Your task to perform on an android device: change notifications settings Image 0: 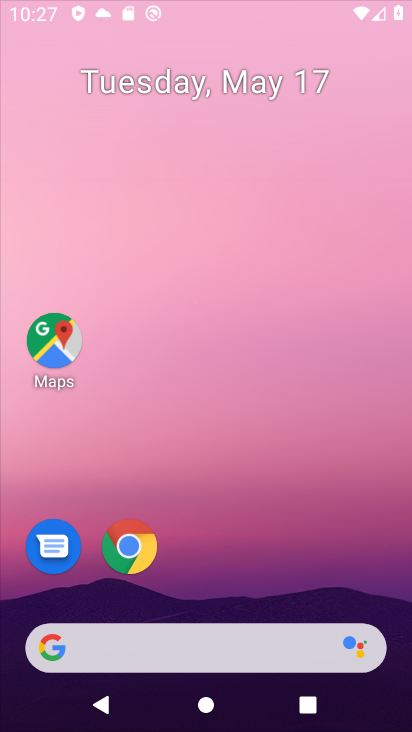
Step 0: drag from (282, 449) to (320, 163)
Your task to perform on an android device: change notifications settings Image 1: 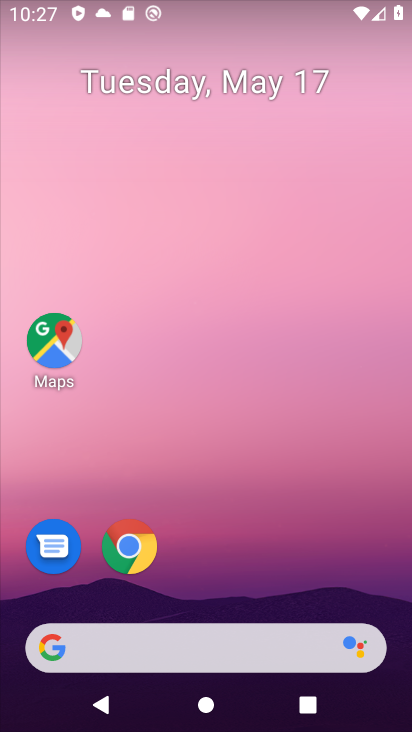
Step 1: drag from (257, 596) to (275, 246)
Your task to perform on an android device: change notifications settings Image 2: 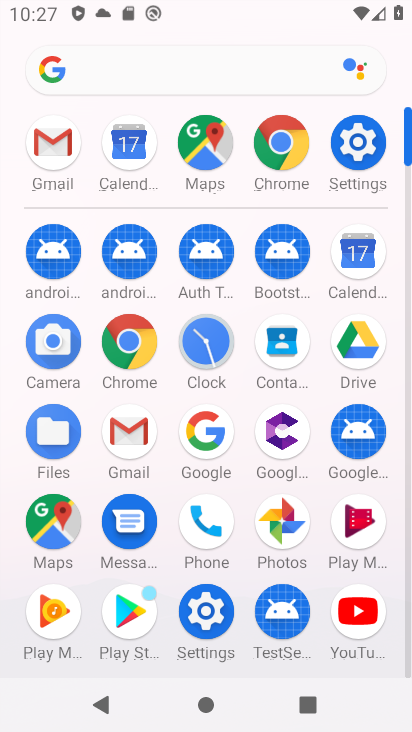
Step 2: click (344, 134)
Your task to perform on an android device: change notifications settings Image 3: 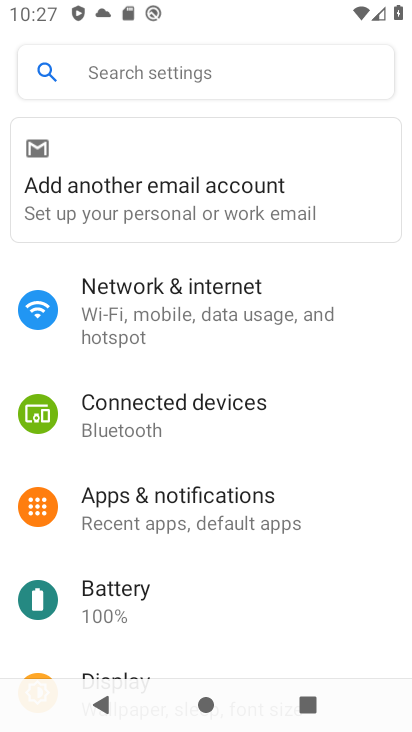
Step 3: click (171, 511)
Your task to perform on an android device: change notifications settings Image 4: 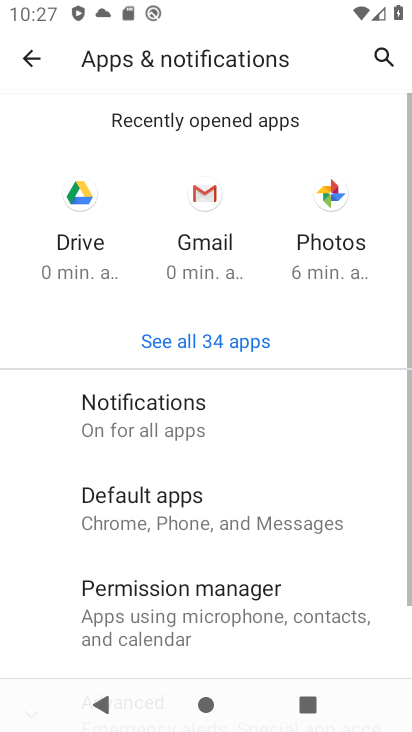
Step 4: click (171, 419)
Your task to perform on an android device: change notifications settings Image 5: 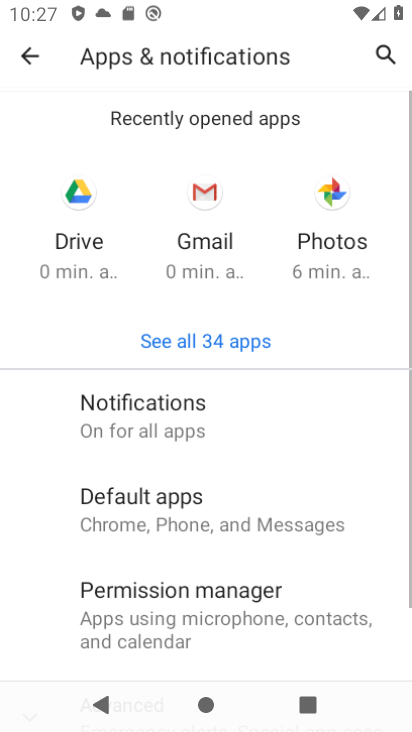
Step 5: drag from (256, 589) to (311, 246)
Your task to perform on an android device: change notifications settings Image 6: 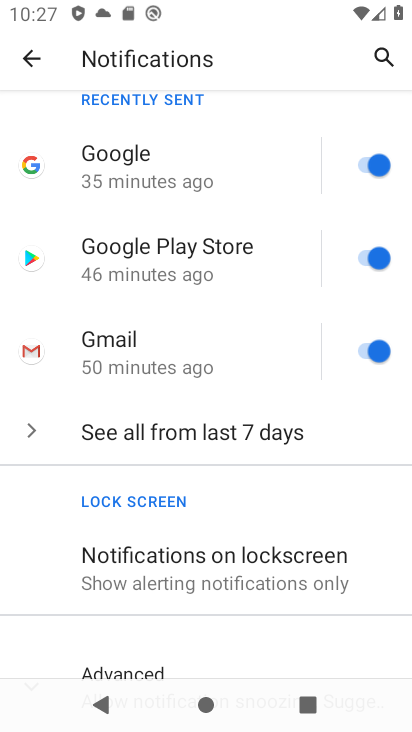
Step 6: click (253, 430)
Your task to perform on an android device: change notifications settings Image 7: 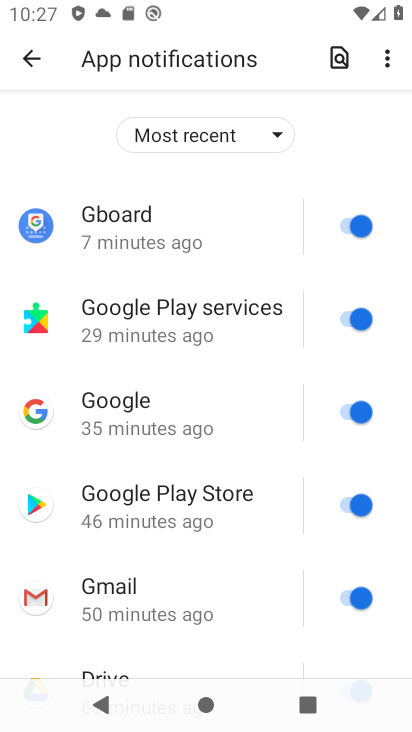
Step 7: click (332, 230)
Your task to perform on an android device: change notifications settings Image 8: 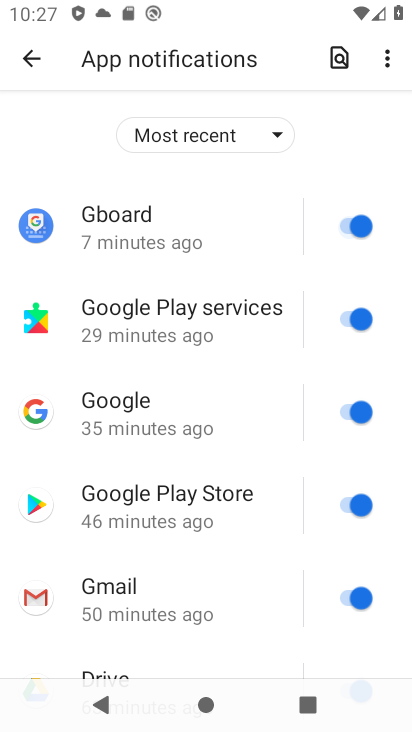
Step 8: click (347, 316)
Your task to perform on an android device: change notifications settings Image 9: 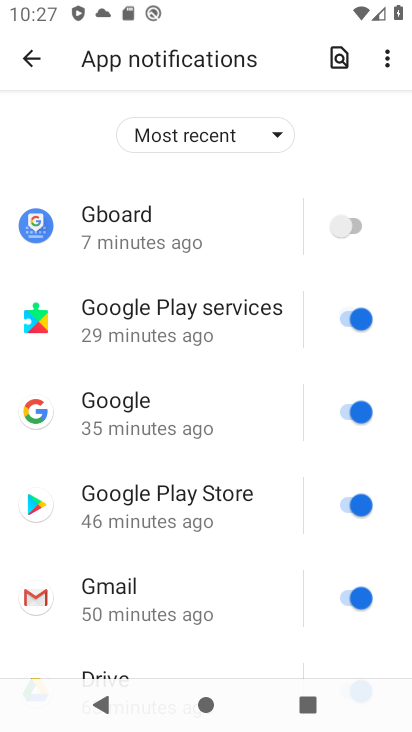
Step 9: click (348, 439)
Your task to perform on an android device: change notifications settings Image 10: 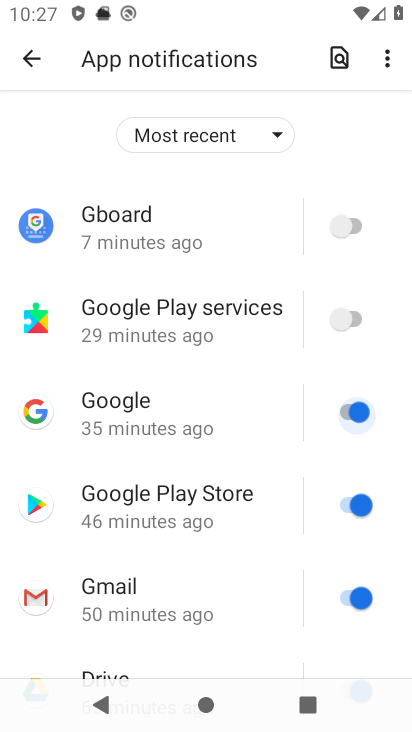
Step 10: click (352, 503)
Your task to perform on an android device: change notifications settings Image 11: 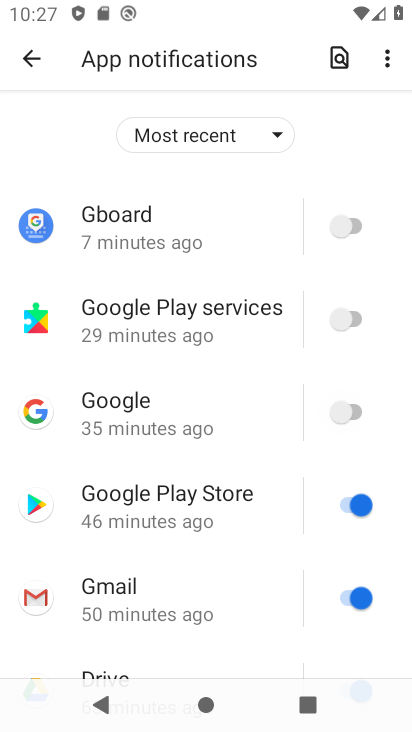
Step 11: click (342, 576)
Your task to perform on an android device: change notifications settings Image 12: 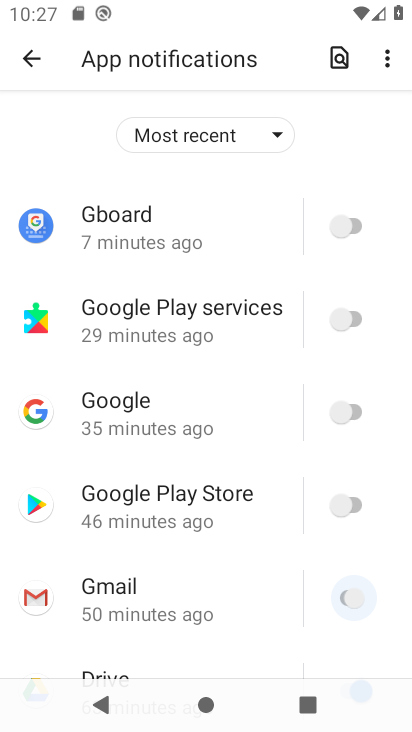
Step 12: click (350, 617)
Your task to perform on an android device: change notifications settings Image 13: 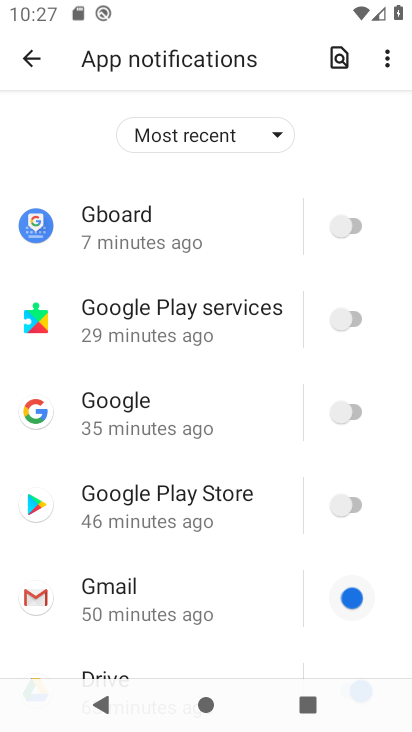
Step 13: drag from (218, 598) to (234, 193)
Your task to perform on an android device: change notifications settings Image 14: 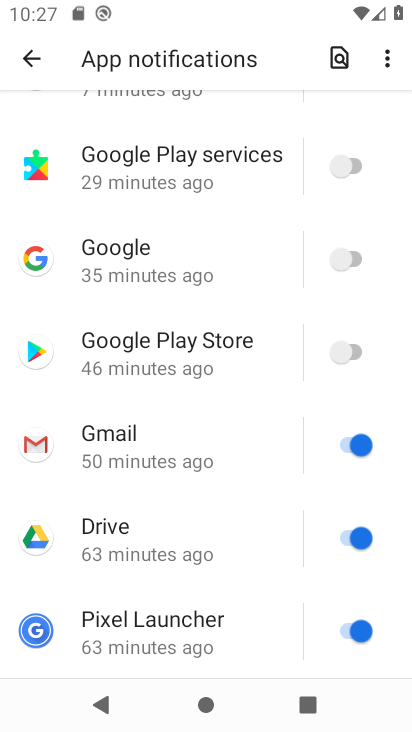
Step 14: click (333, 432)
Your task to perform on an android device: change notifications settings Image 15: 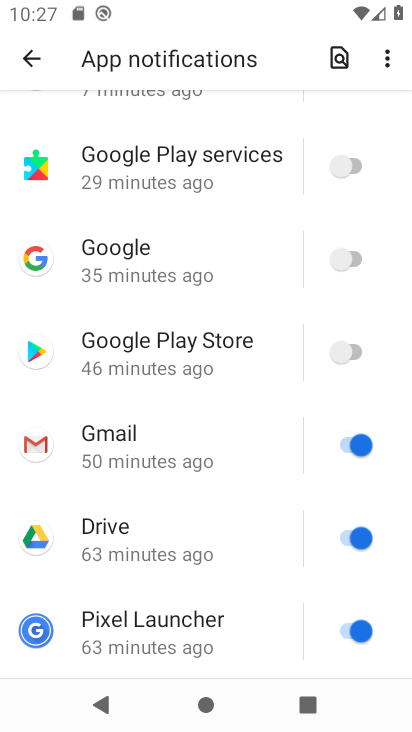
Step 15: click (336, 517)
Your task to perform on an android device: change notifications settings Image 16: 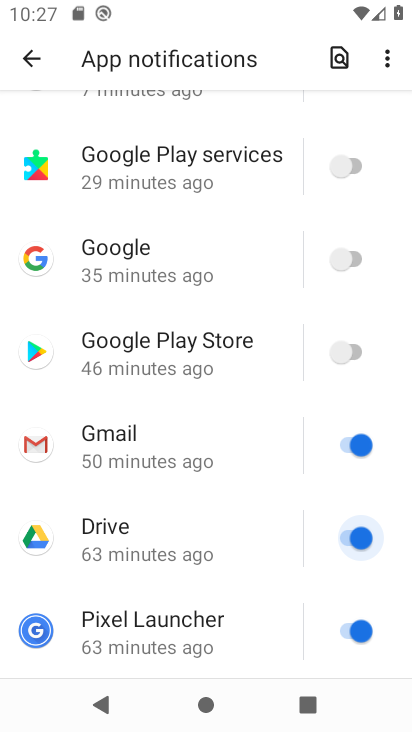
Step 16: click (329, 649)
Your task to perform on an android device: change notifications settings Image 17: 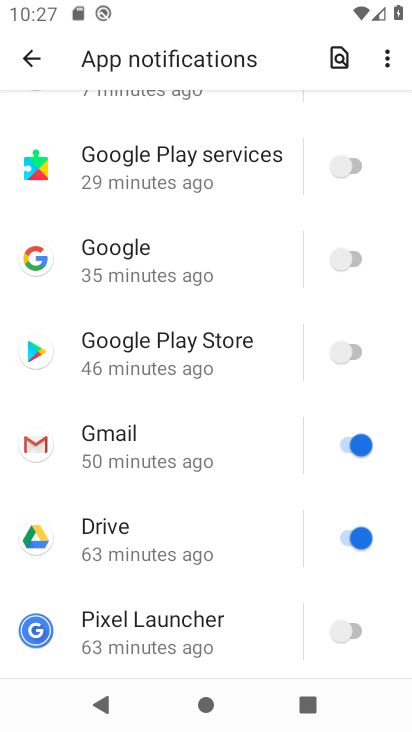
Step 17: click (353, 527)
Your task to perform on an android device: change notifications settings Image 18: 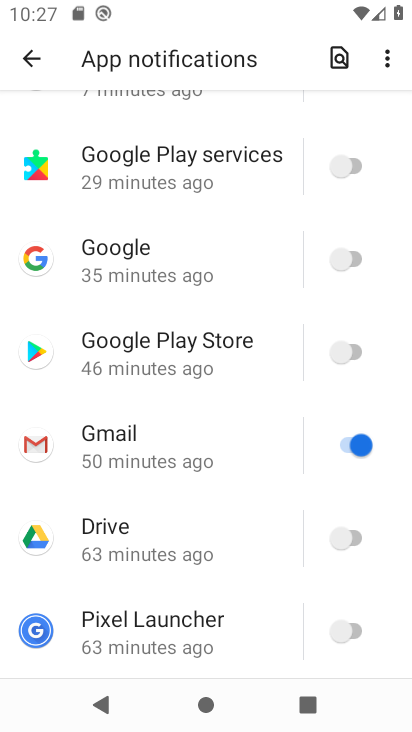
Step 18: click (356, 437)
Your task to perform on an android device: change notifications settings Image 19: 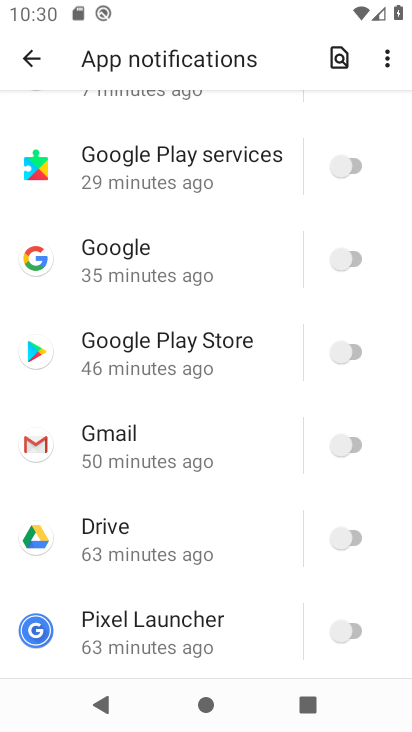
Step 19: task complete